Your task to perform on an android device: Search for sushi restaurants on Maps Image 0: 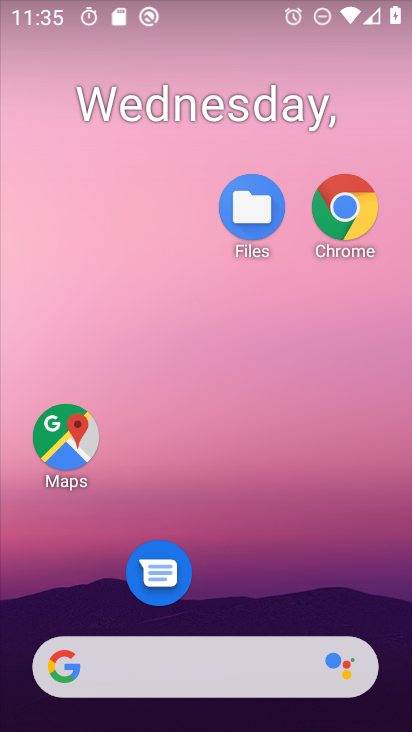
Step 0: drag from (273, 623) to (266, 288)
Your task to perform on an android device: Search for sushi restaurants on Maps Image 1: 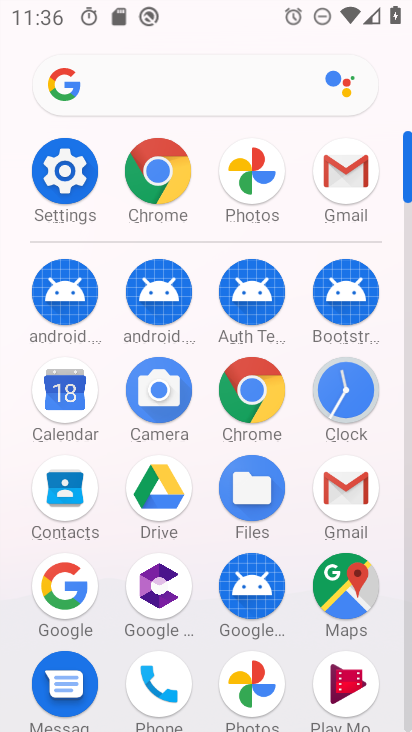
Step 1: click (336, 593)
Your task to perform on an android device: Search for sushi restaurants on Maps Image 2: 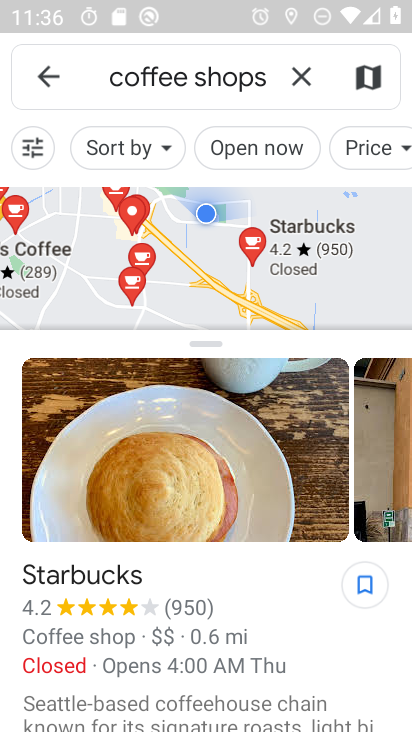
Step 2: click (304, 73)
Your task to perform on an android device: Search for sushi restaurants on Maps Image 3: 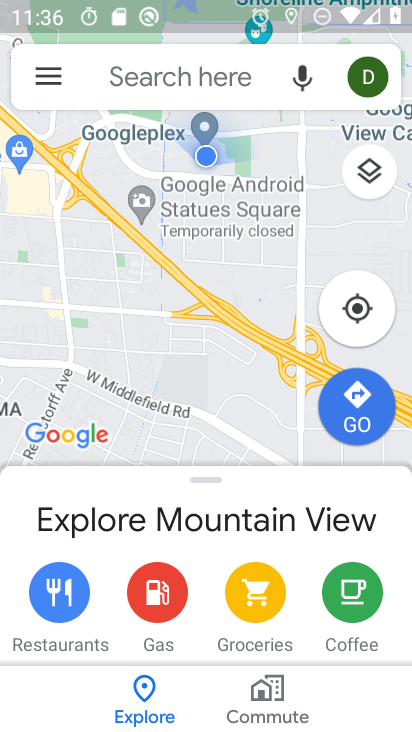
Step 3: type "sushi restaurants"
Your task to perform on an android device: Search for sushi restaurants on Maps Image 4: 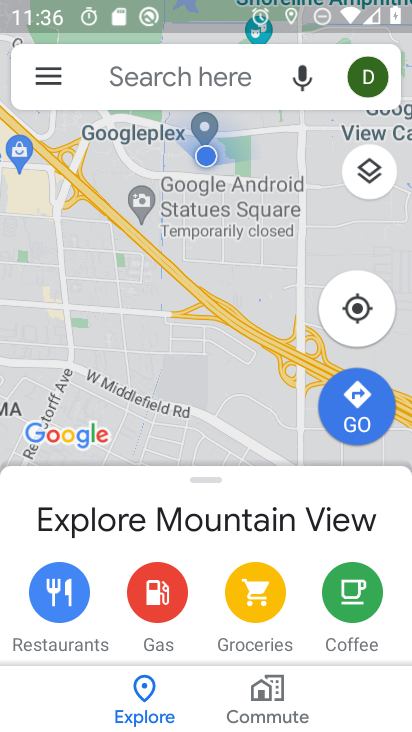
Step 4: click (209, 76)
Your task to perform on an android device: Search for sushi restaurants on Maps Image 5: 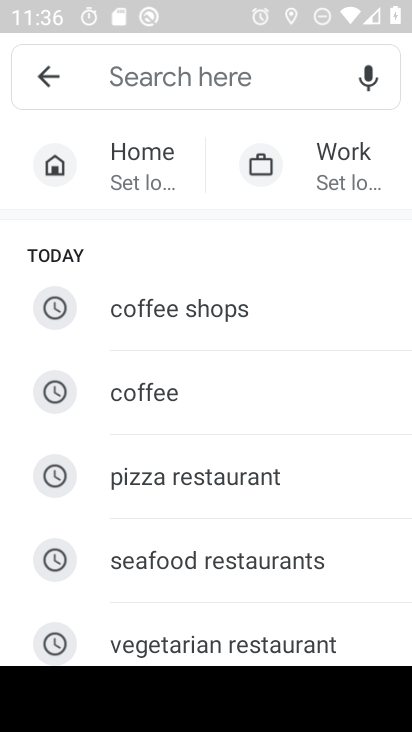
Step 5: drag from (170, 433) to (180, 275)
Your task to perform on an android device: Search for sushi restaurants on Maps Image 6: 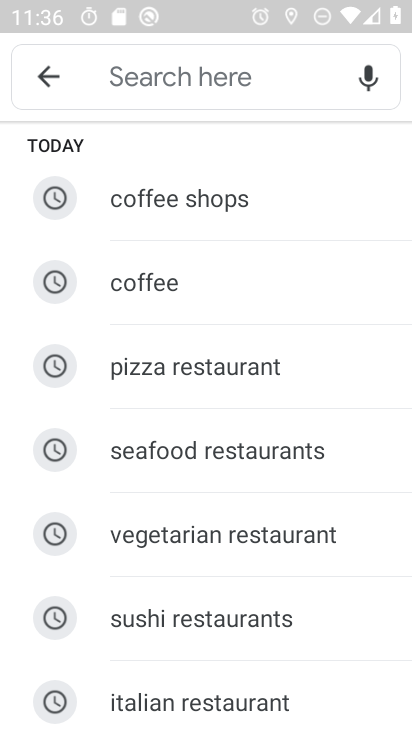
Step 6: click (226, 632)
Your task to perform on an android device: Search for sushi restaurants on Maps Image 7: 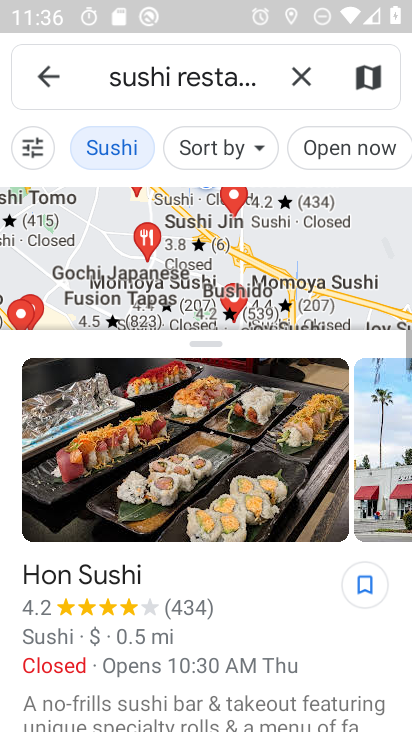
Step 7: task complete